Your task to perform on an android device: clear all cookies in the chrome app Image 0: 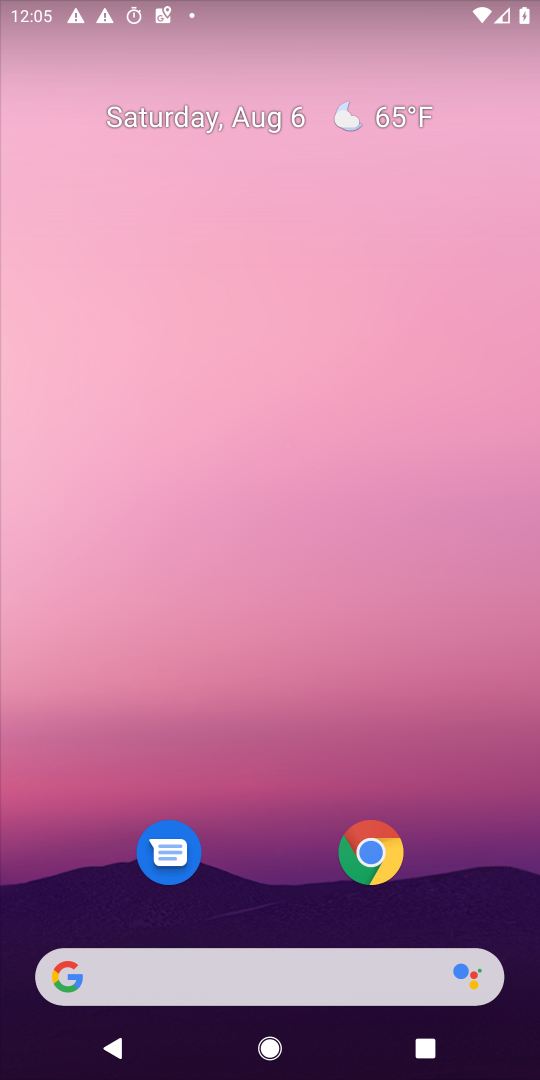
Step 0: drag from (349, 976) to (160, 236)
Your task to perform on an android device: clear all cookies in the chrome app Image 1: 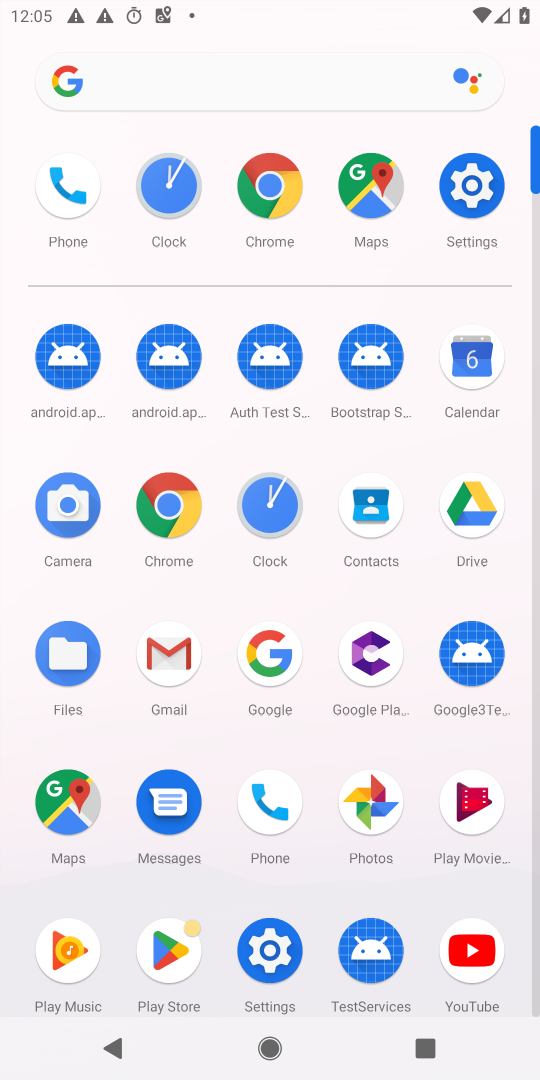
Step 1: click (268, 230)
Your task to perform on an android device: clear all cookies in the chrome app Image 2: 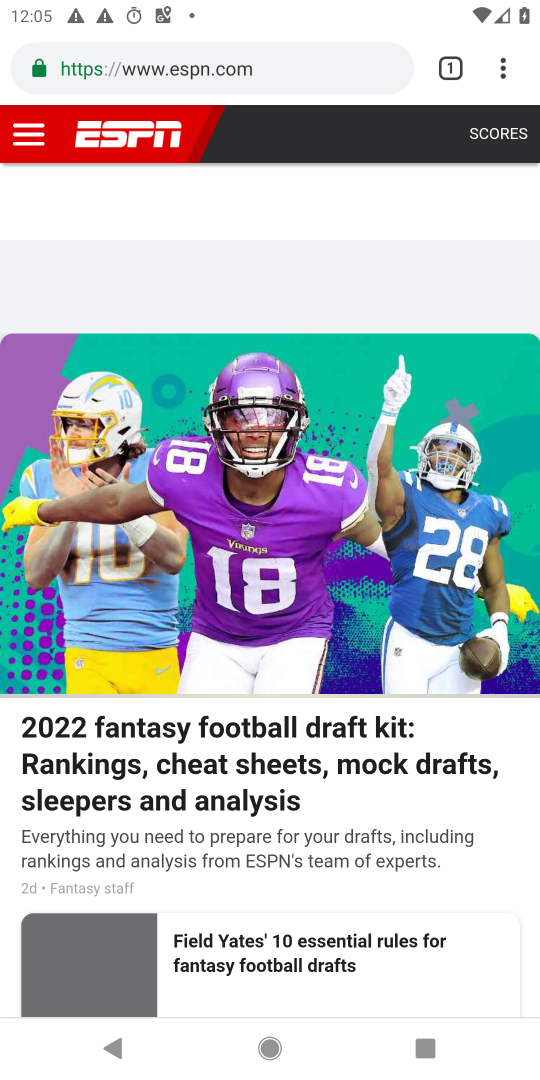
Step 2: click (504, 73)
Your task to perform on an android device: clear all cookies in the chrome app Image 3: 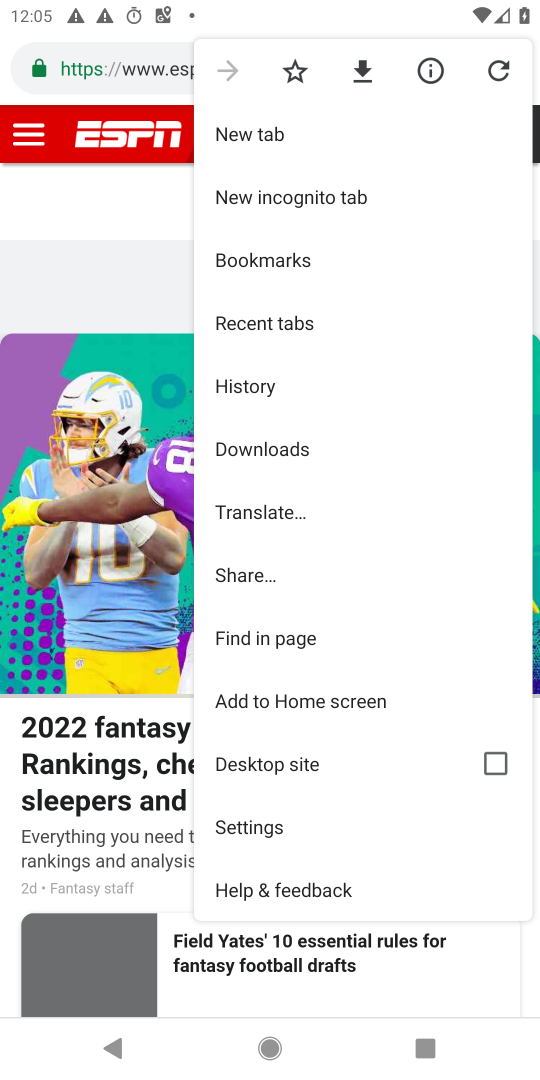
Step 3: click (267, 388)
Your task to perform on an android device: clear all cookies in the chrome app Image 4: 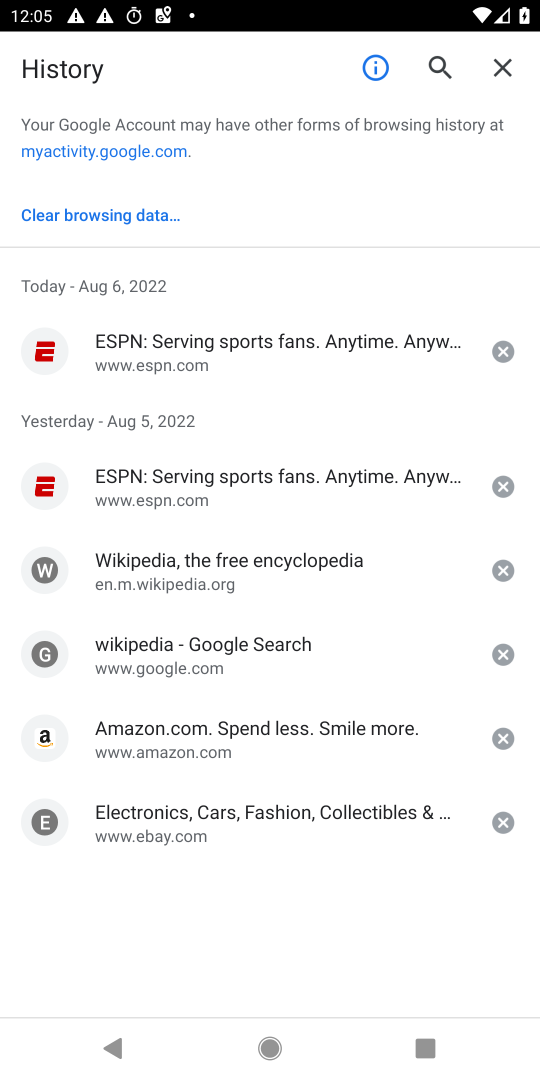
Step 4: click (112, 211)
Your task to perform on an android device: clear all cookies in the chrome app Image 5: 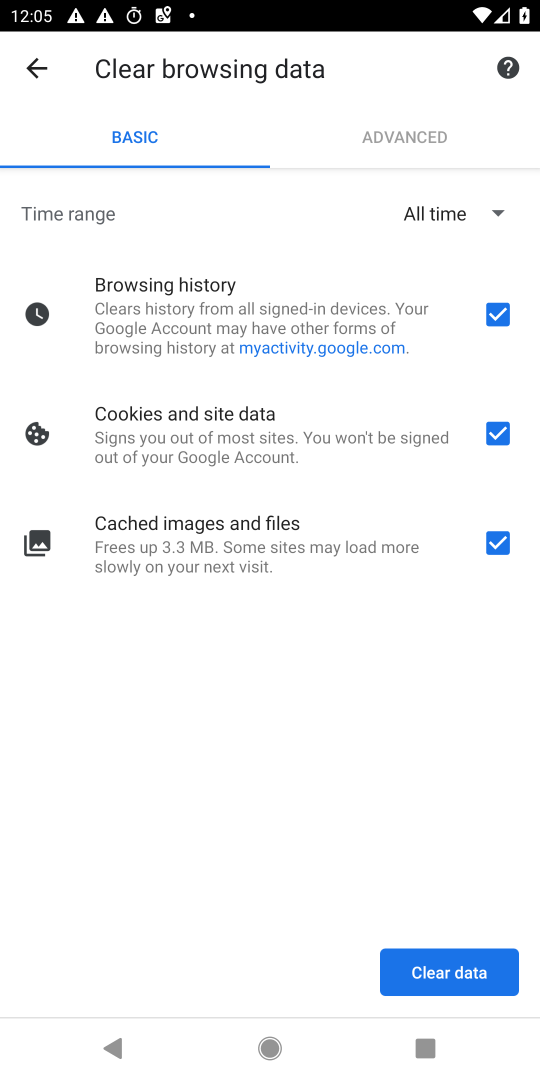
Step 5: click (440, 955)
Your task to perform on an android device: clear all cookies in the chrome app Image 6: 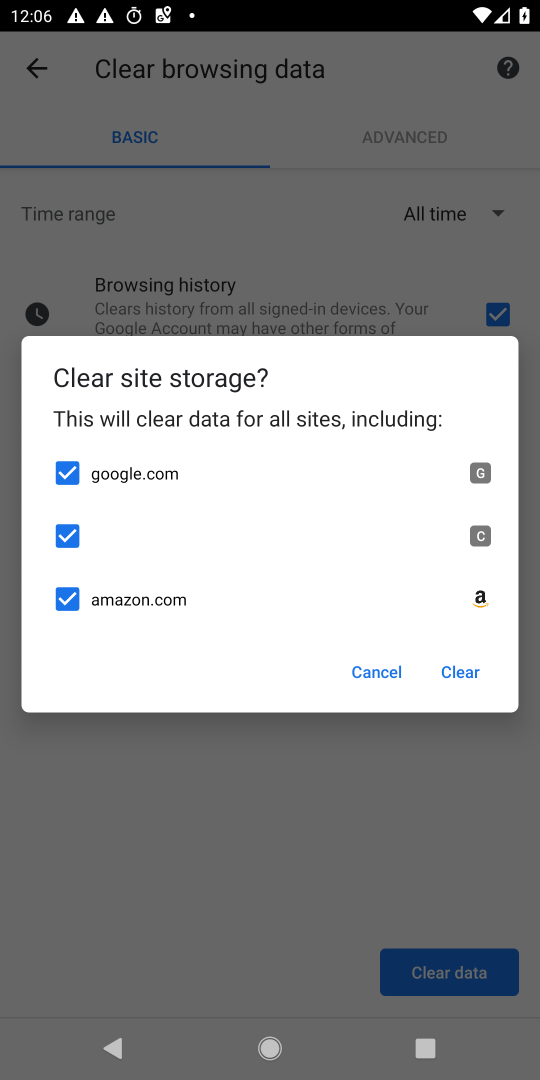
Step 6: click (460, 673)
Your task to perform on an android device: clear all cookies in the chrome app Image 7: 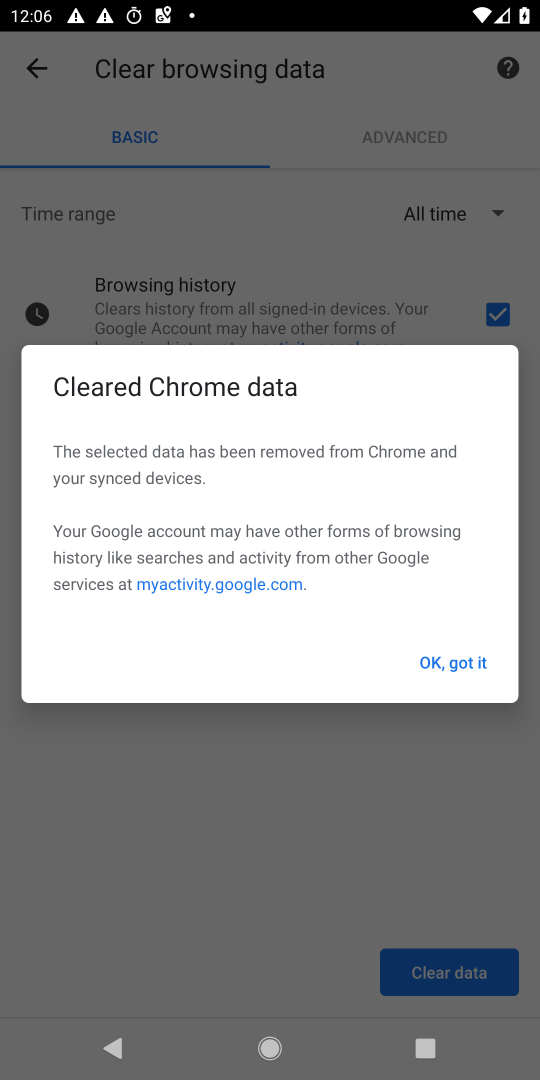
Step 7: task complete